Your task to perform on an android device: Is it going to rain tomorrow? Image 0: 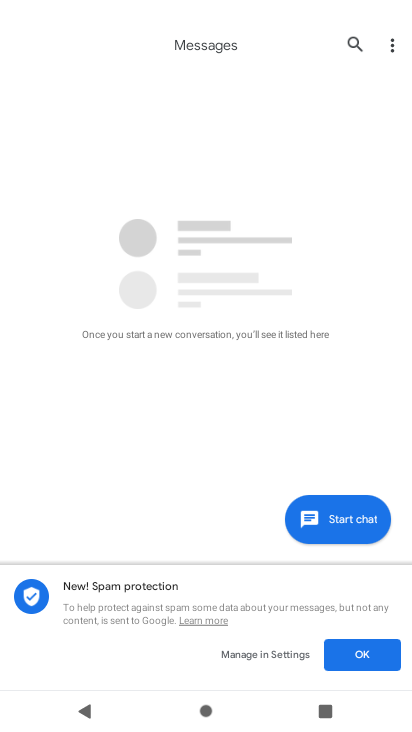
Step 0: press home button
Your task to perform on an android device: Is it going to rain tomorrow? Image 1: 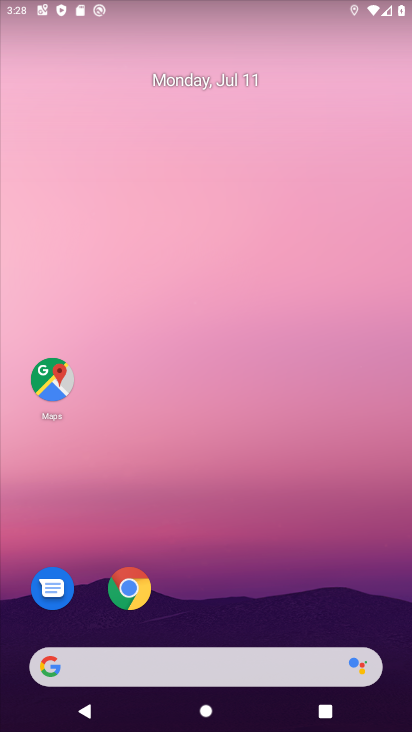
Step 1: drag from (130, 585) to (174, 380)
Your task to perform on an android device: Is it going to rain tomorrow? Image 2: 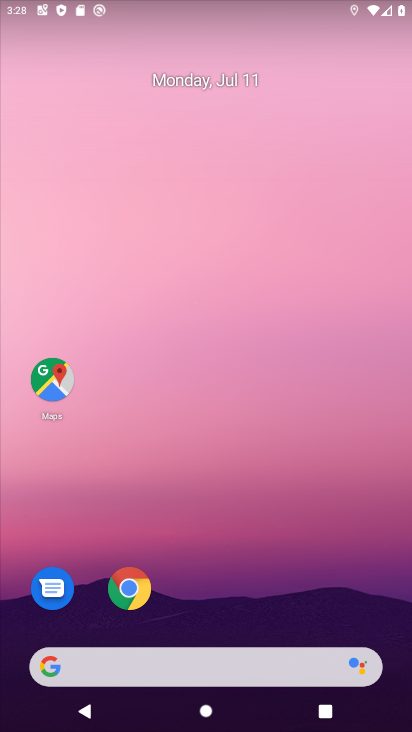
Step 2: drag from (172, 666) to (207, 300)
Your task to perform on an android device: Is it going to rain tomorrow? Image 3: 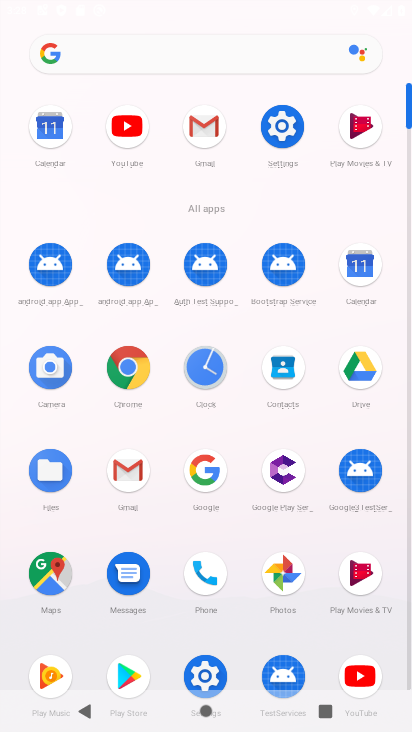
Step 3: click (206, 484)
Your task to perform on an android device: Is it going to rain tomorrow? Image 4: 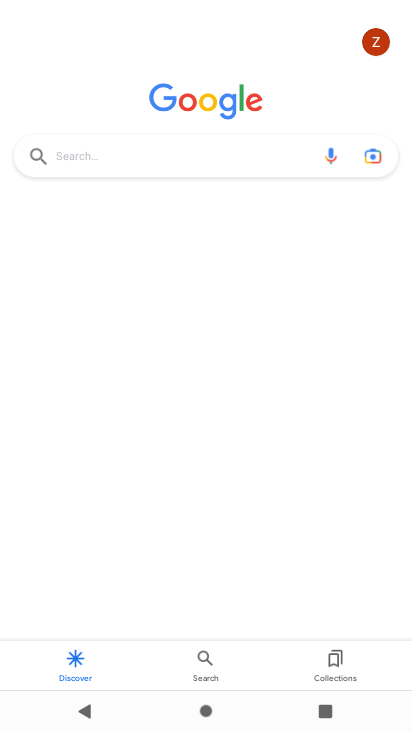
Step 4: click (106, 148)
Your task to perform on an android device: Is it going to rain tomorrow? Image 5: 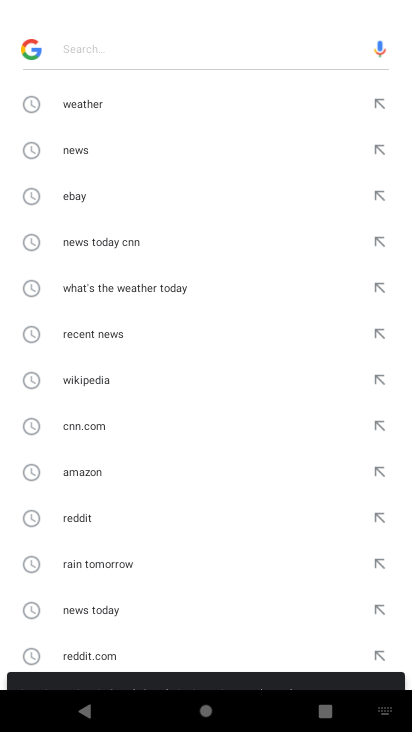
Step 5: drag from (94, 601) to (123, 168)
Your task to perform on an android device: Is it going to rain tomorrow? Image 6: 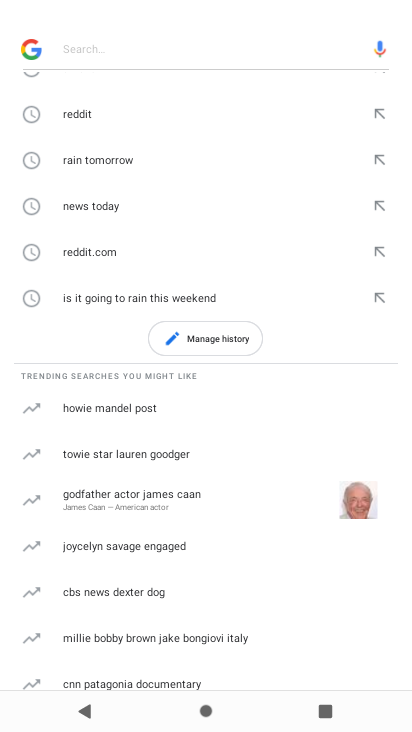
Step 6: click (151, 296)
Your task to perform on an android device: Is it going to rain tomorrow? Image 7: 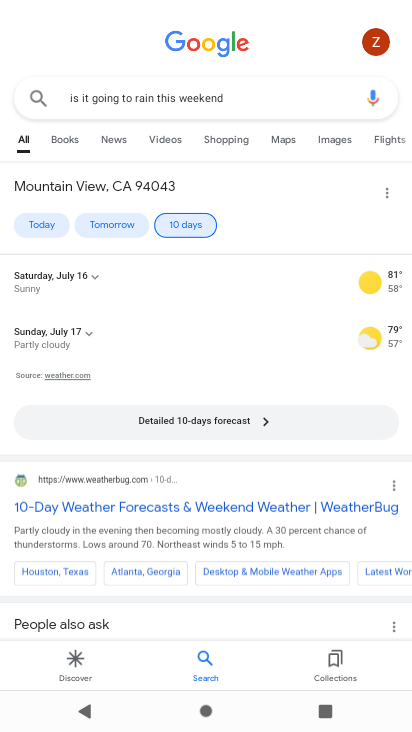
Step 7: click (94, 225)
Your task to perform on an android device: Is it going to rain tomorrow? Image 8: 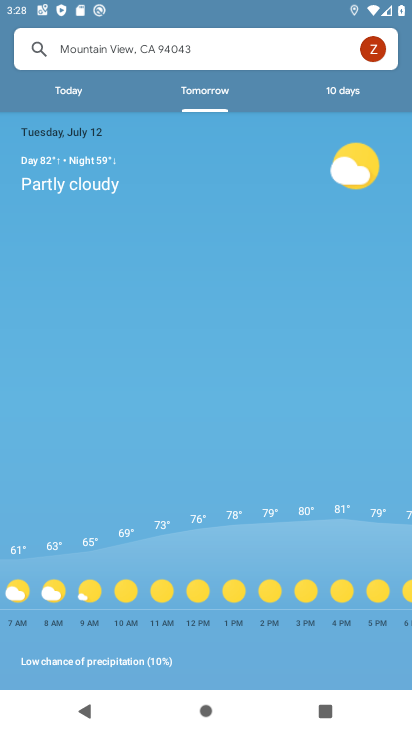
Step 8: task complete